Your task to perform on an android device: Open Wikipedia Image 0: 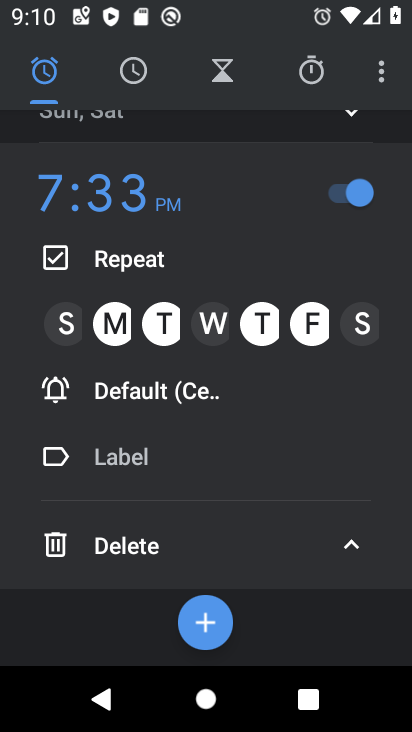
Step 0: press home button
Your task to perform on an android device: Open Wikipedia Image 1: 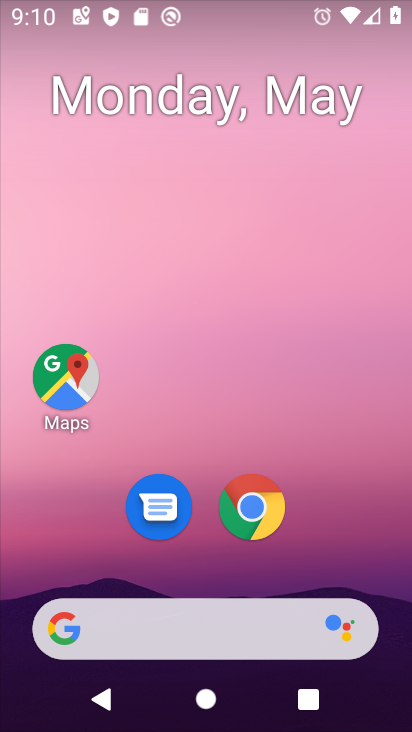
Step 1: drag from (216, 507) to (276, 8)
Your task to perform on an android device: Open Wikipedia Image 2: 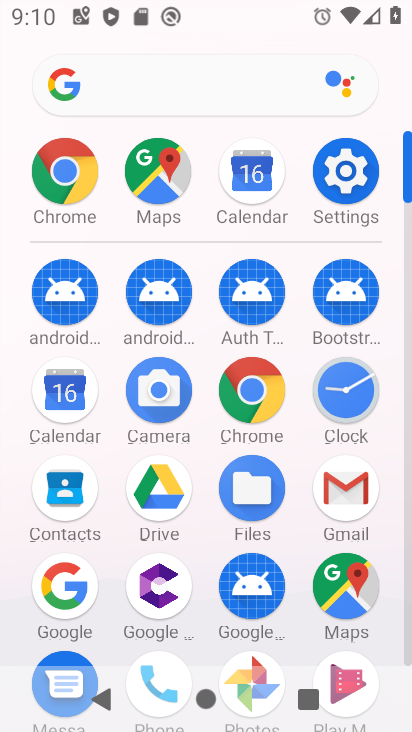
Step 2: click (70, 188)
Your task to perform on an android device: Open Wikipedia Image 3: 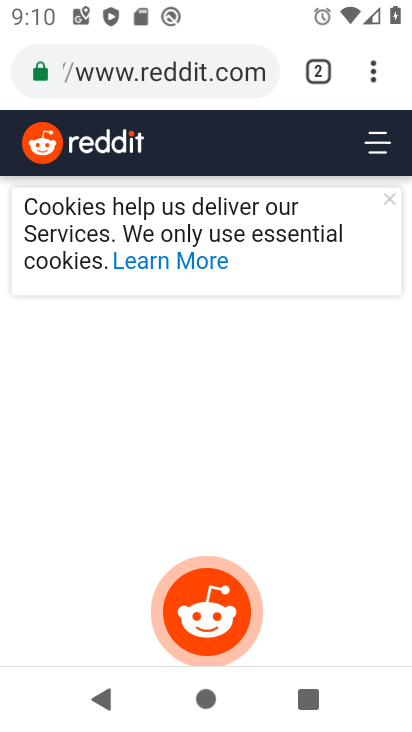
Step 3: click (244, 76)
Your task to perform on an android device: Open Wikipedia Image 4: 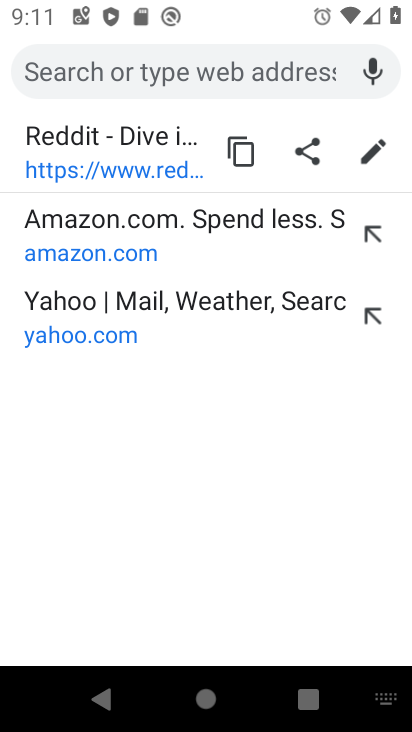
Step 4: type "wikipedia.com"
Your task to perform on an android device: Open Wikipedia Image 5: 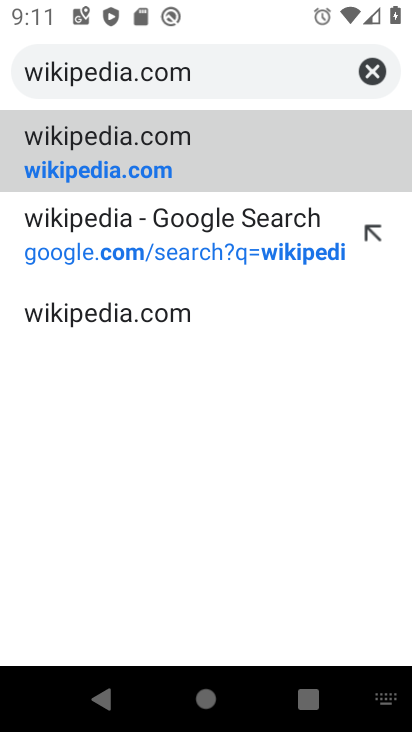
Step 5: click (192, 141)
Your task to perform on an android device: Open Wikipedia Image 6: 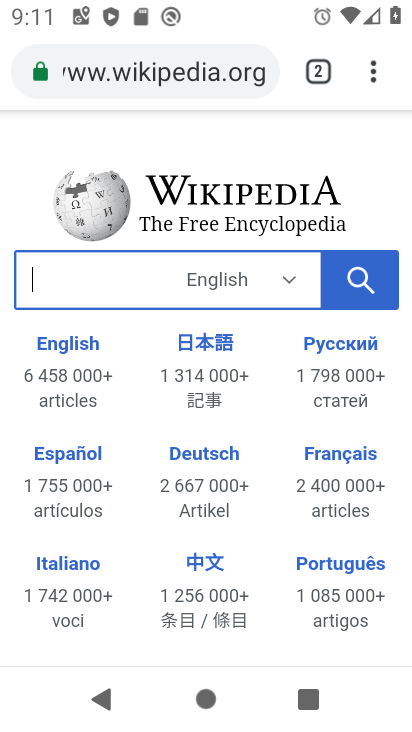
Step 6: task complete